Your task to perform on an android device: Go to sound settings Image 0: 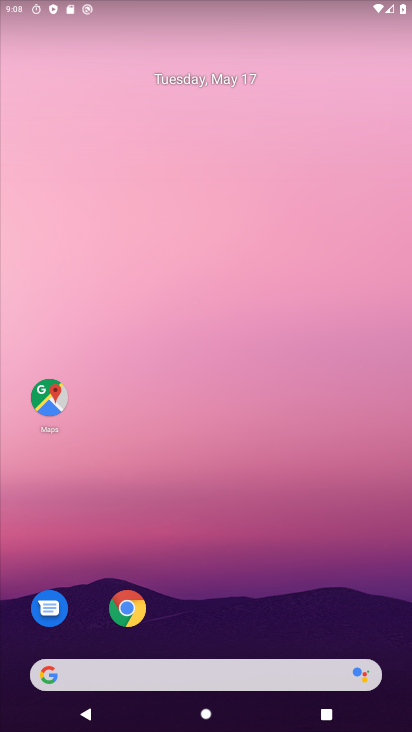
Step 0: drag from (327, 604) to (296, 216)
Your task to perform on an android device: Go to sound settings Image 1: 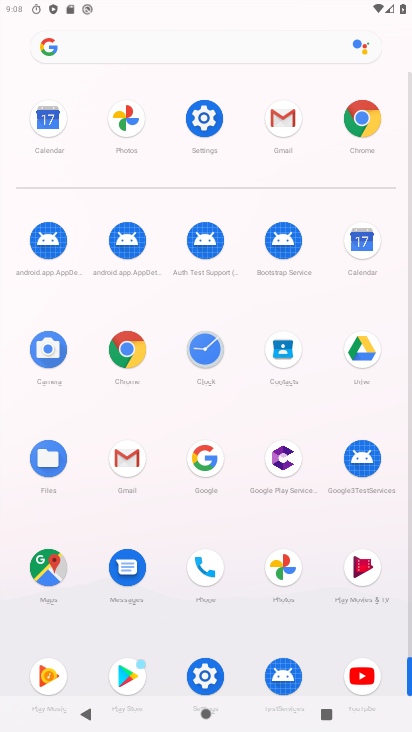
Step 1: click (202, 123)
Your task to perform on an android device: Go to sound settings Image 2: 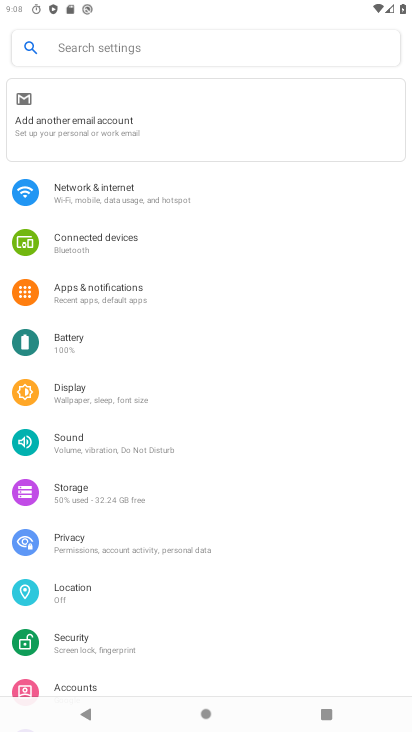
Step 2: click (118, 450)
Your task to perform on an android device: Go to sound settings Image 3: 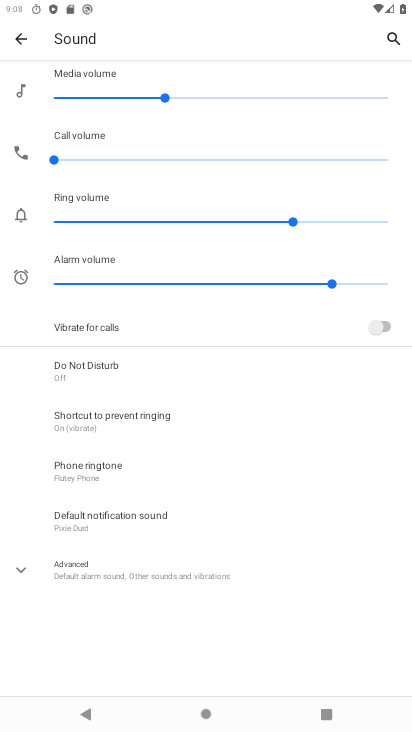
Step 3: task complete